Your task to perform on an android device: open app "Pandora - Music & Podcasts" Image 0: 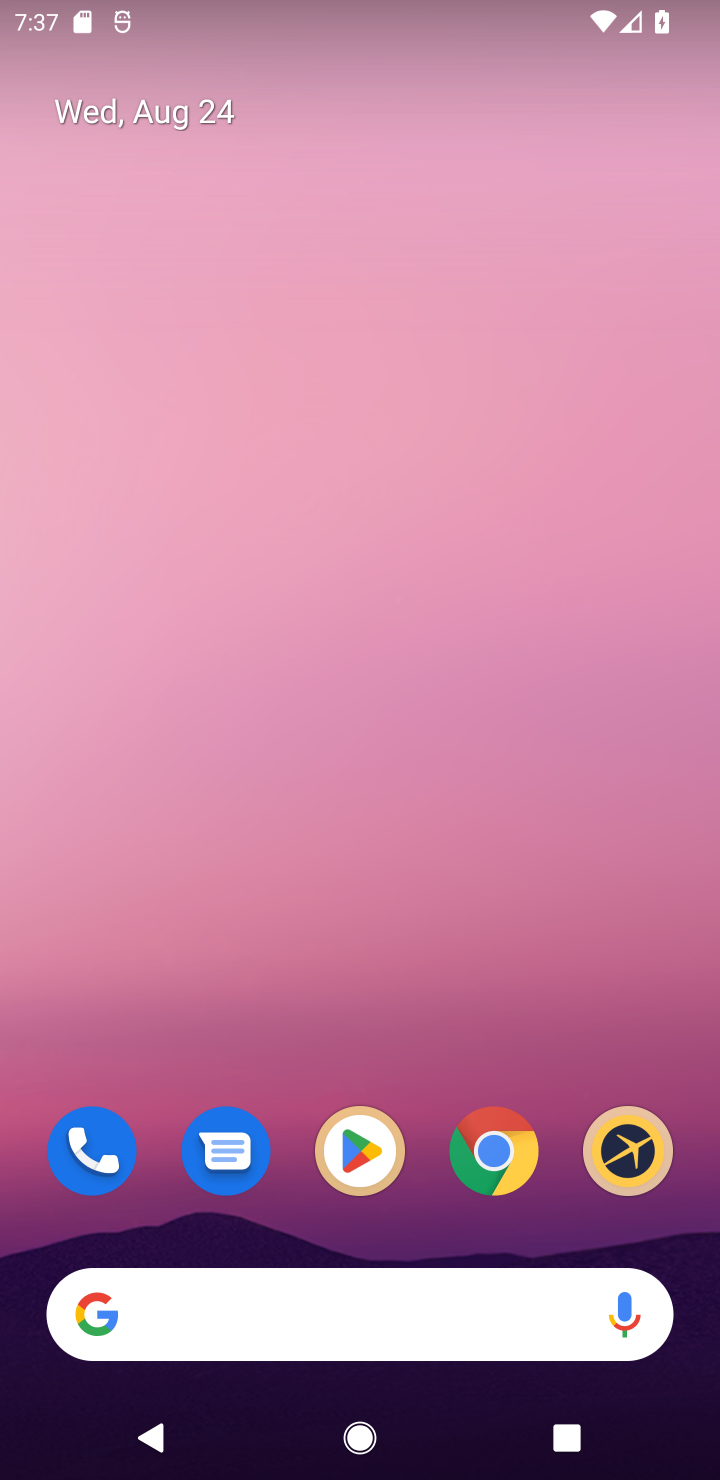
Step 0: click (365, 1146)
Your task to perform on an android device: open app "Pandora - Music & Podcasts" Image 1: 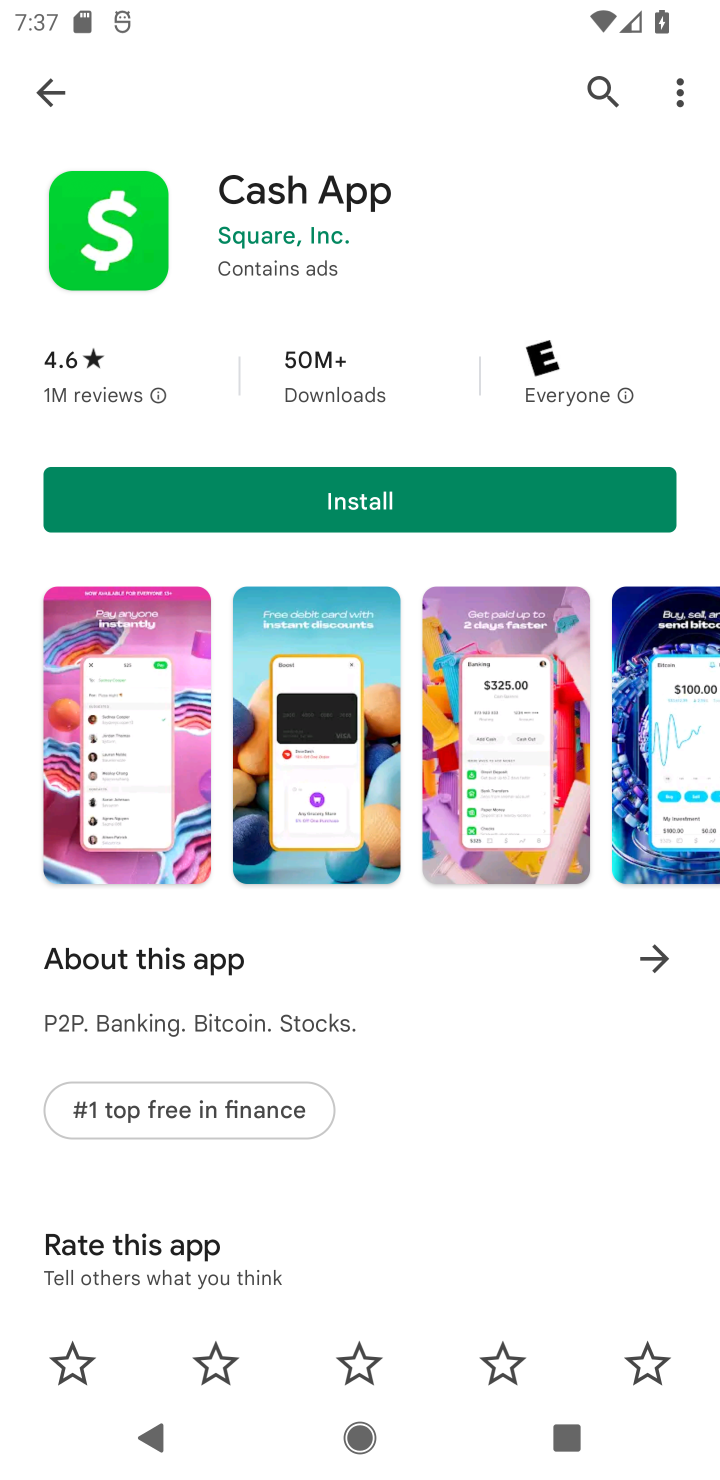
Step 1: click (595, 84)
Your task to perform on an android device: open app "Pandora - Music & Podcasts" Image 2: 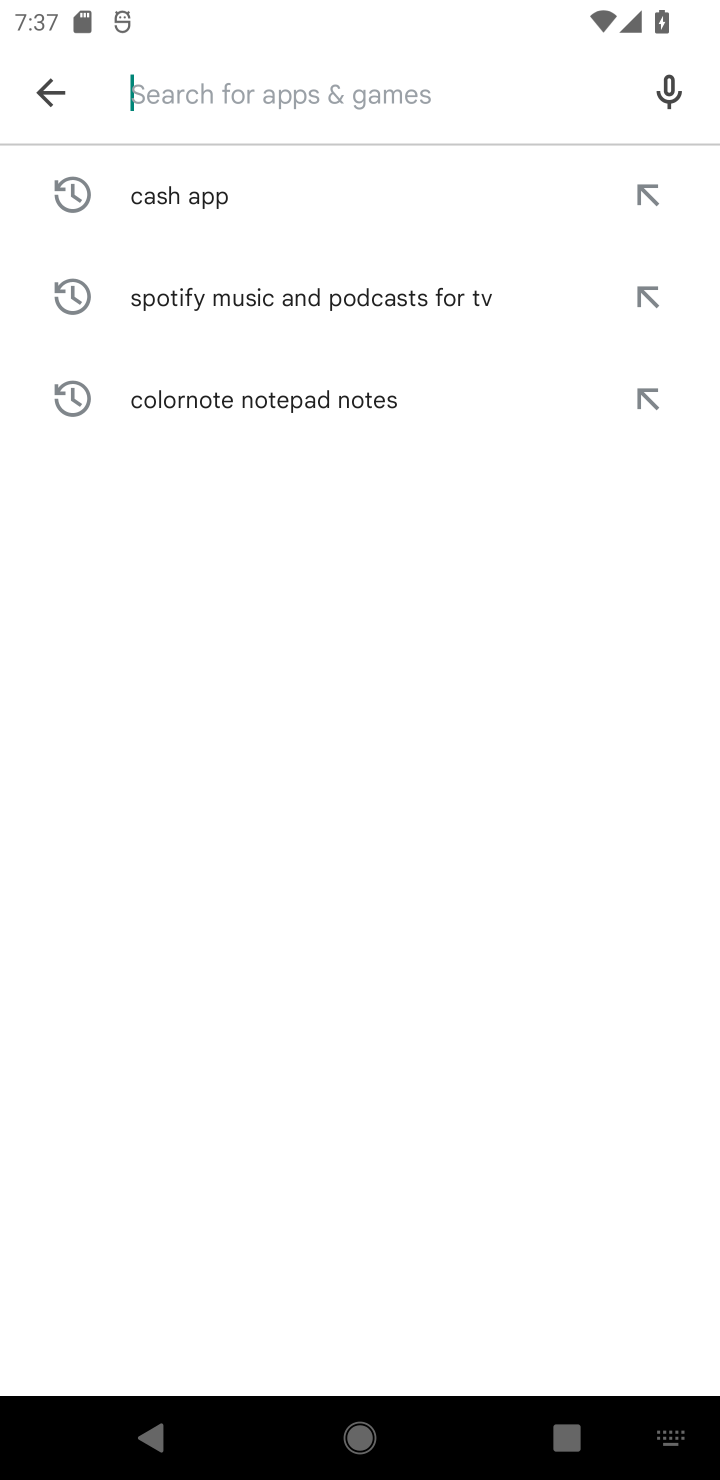
Step 2: type "Pandora - Music & Podcasts"
Your task to perform on an android device: open app "Pandora - Music & Podcasts" Image 3: 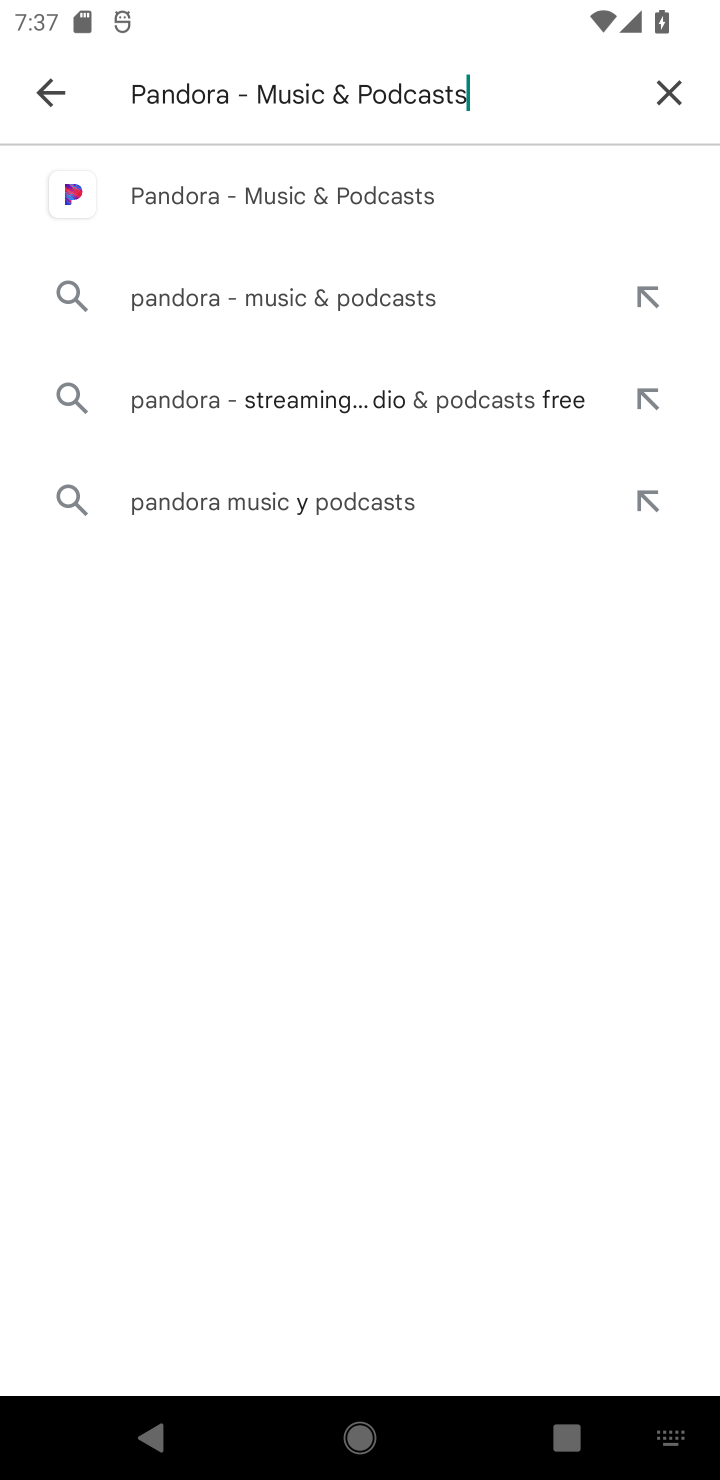
Step 3: click (231, 184)
Your task to perform on an android device: open app "Pandora - Music & Podcasts" Image 4: 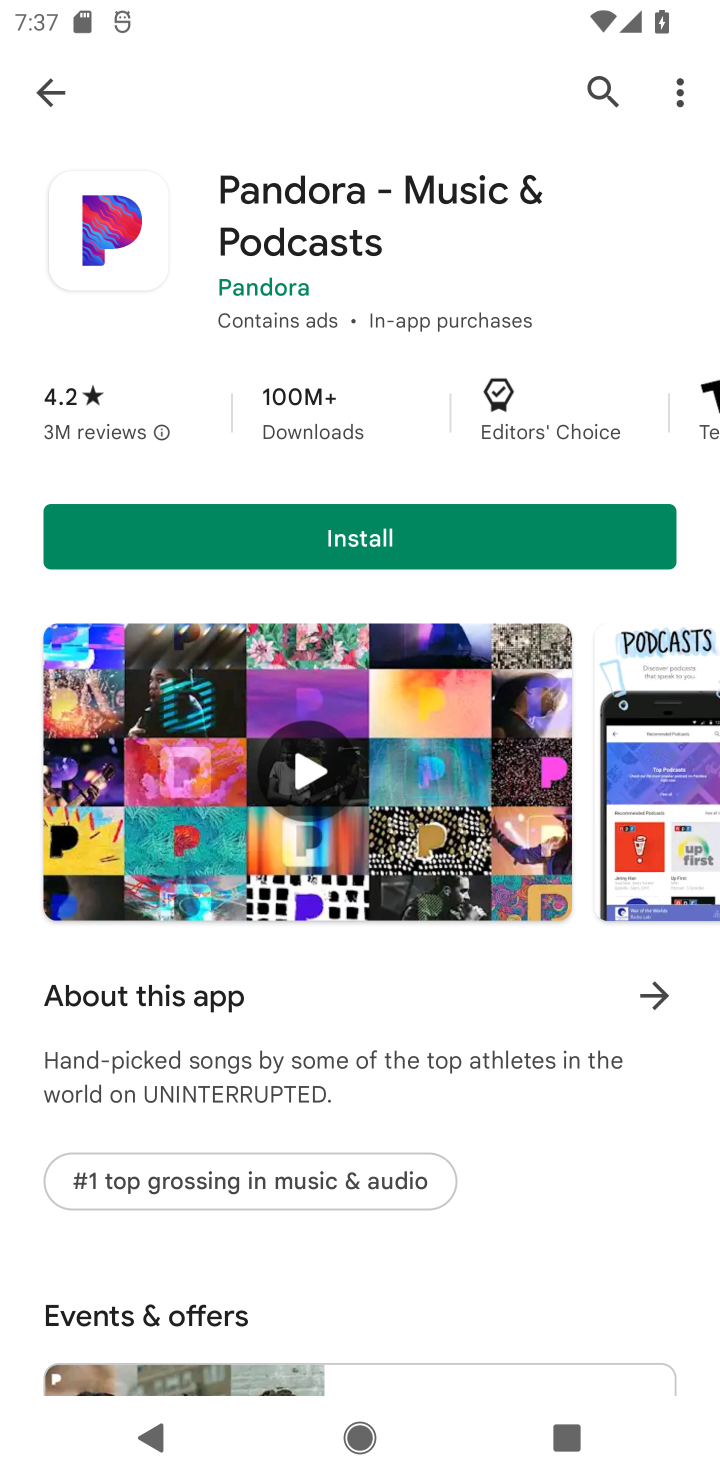
Step 4: task complete